Your task to perform on an android device: turn on translation in the chrome app Image 0: 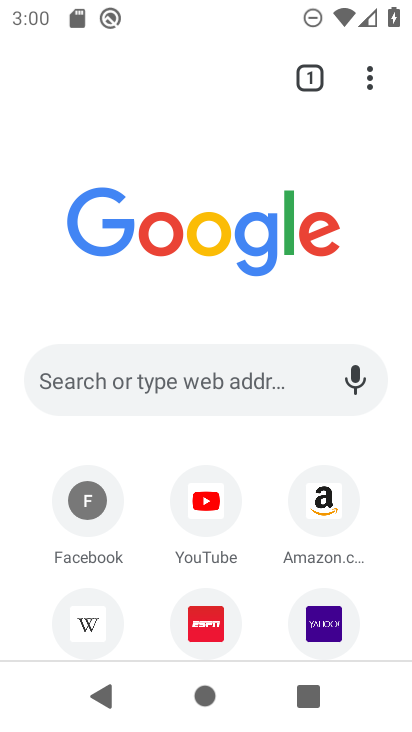
Step 0: drag from (366, 81) to (99, 553)
Your task to perform on an android device: turn on translation in the chrome app Image 1: 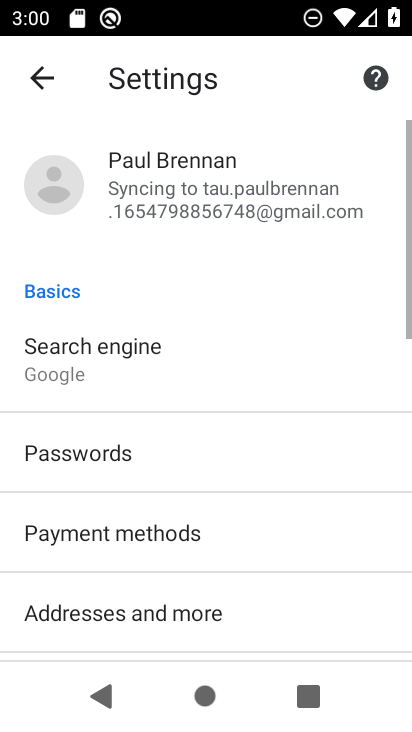
Step 1: drag from (141, 597) to (255, 47)
Your task to perform on an android device: turn on translation in the chrome app Image 2: 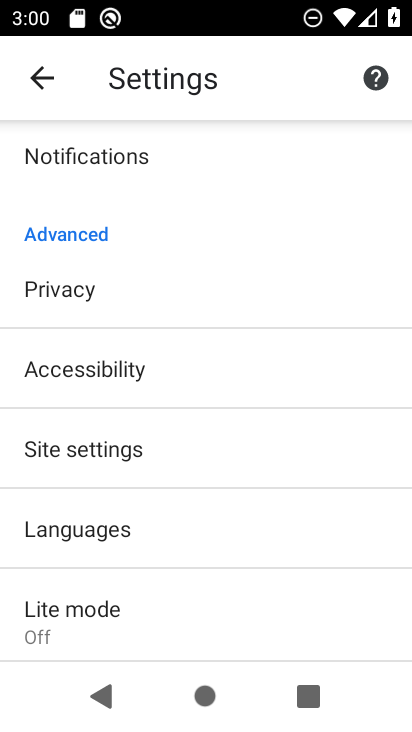
Step 2: click (109, 526)
Your task to perform on an android device: turn on translation in the chrome app Image 3: 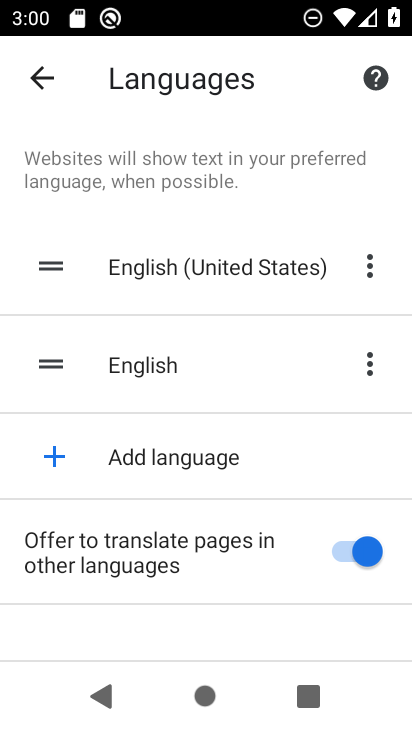
Step 3: task complete